Your task to perform on an android device: Go to Google Image 0: 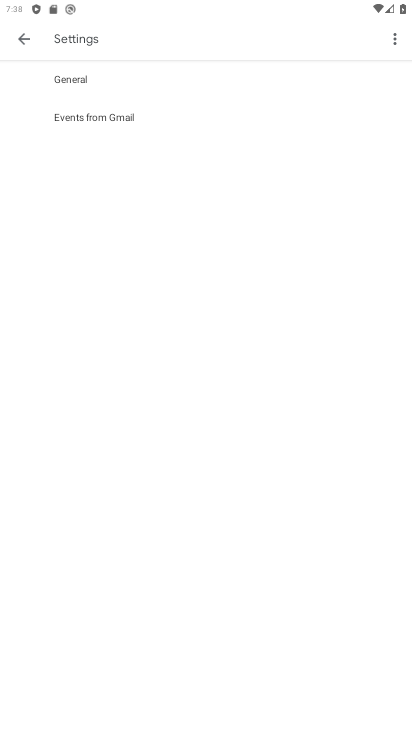
Step 0: press home button
Your task to perform on an android device: Go to Google Image 1: 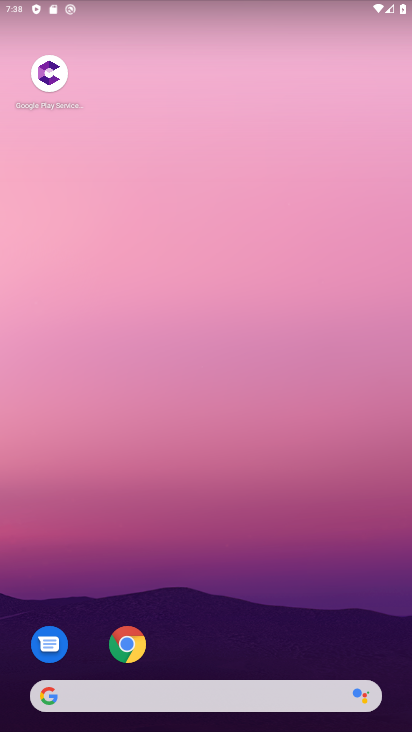
Step 1: drag from (182, 681) to (192, 74)
Your task to perform on an android device: Go to Google Image 2: 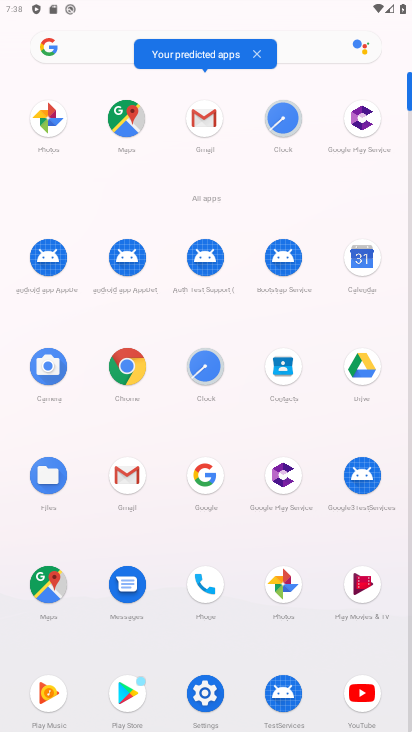
Step 2: click (202, 465)
Your task to perform on an android device: Go to Google Image 3: 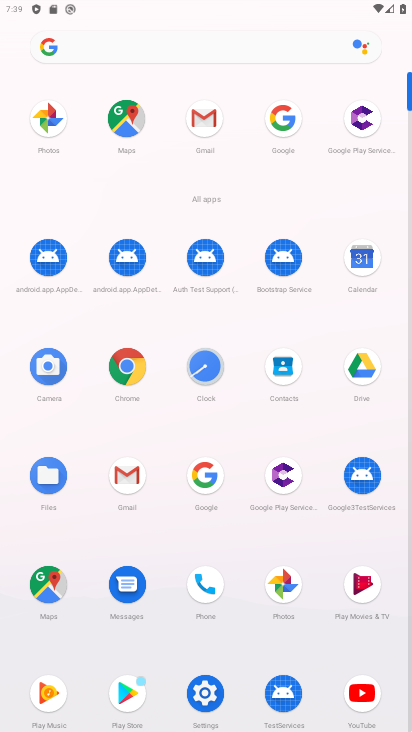
Step 3: click (192, 487)
Your task to perform on an android device: Go to Google Image 4: 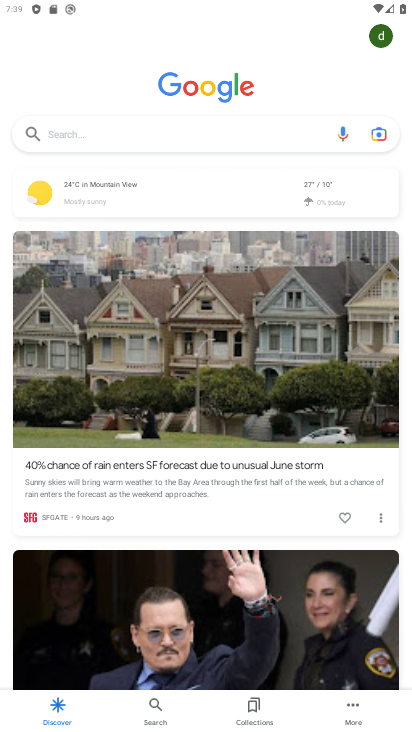
Step 4: task complete